Your task to perform on an android device: delete location history Image 0: 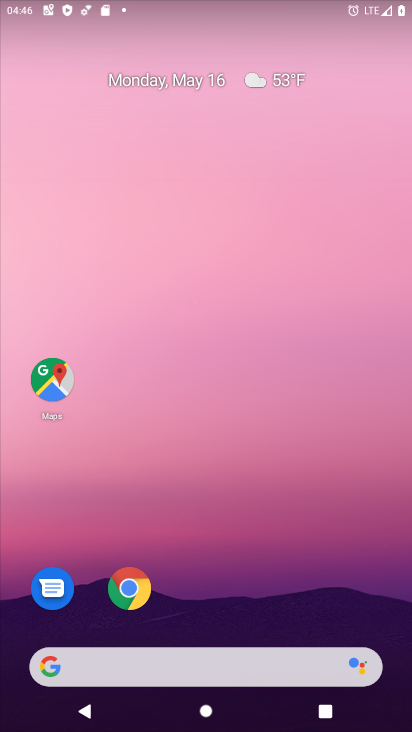
Step 0: drag from (245, 593) to (226, 6)
Your task to perform on an android device: delete location history Image 1: 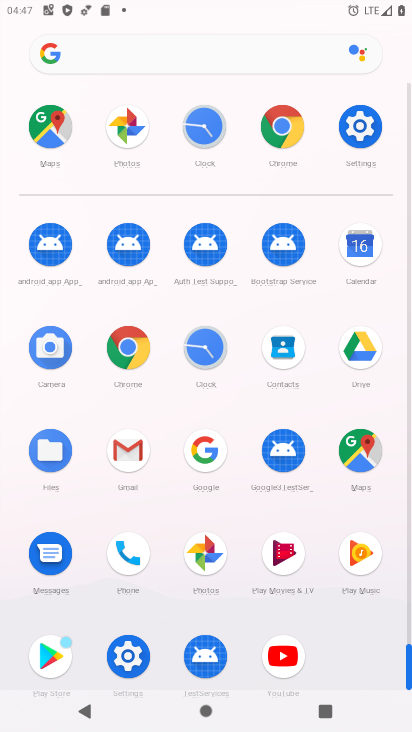
Step 1: click (362, 123)
Your task to perform on an android device: delete location history Image 2: 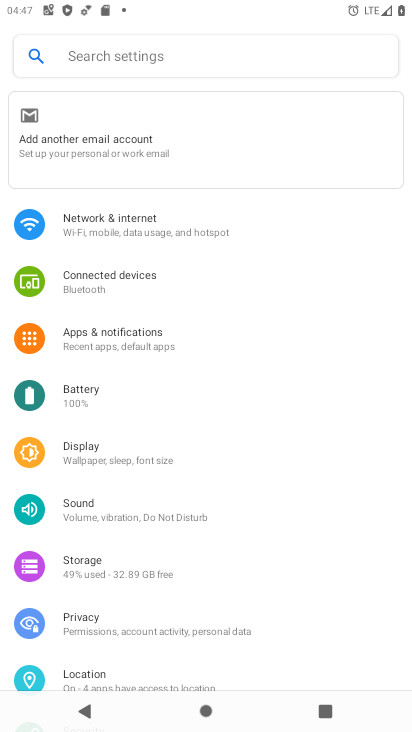
Step 2: drag from (208, 511) to (219, 141)
Your task to perform on an android device: delete location history Image 3: 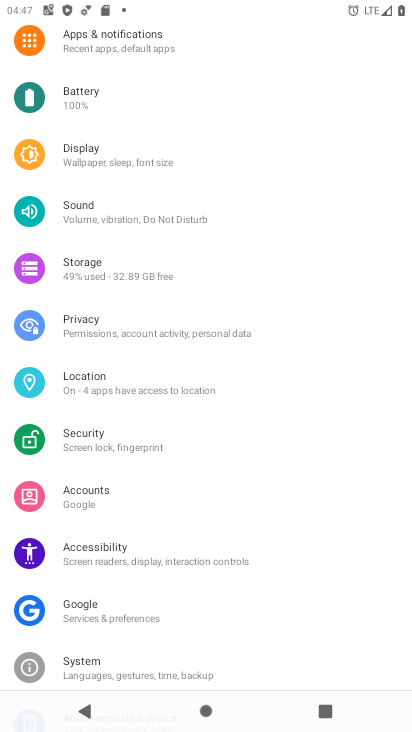
Step 3: click (122, 380)
Your task to perform on an android device: delete location history Image 4: 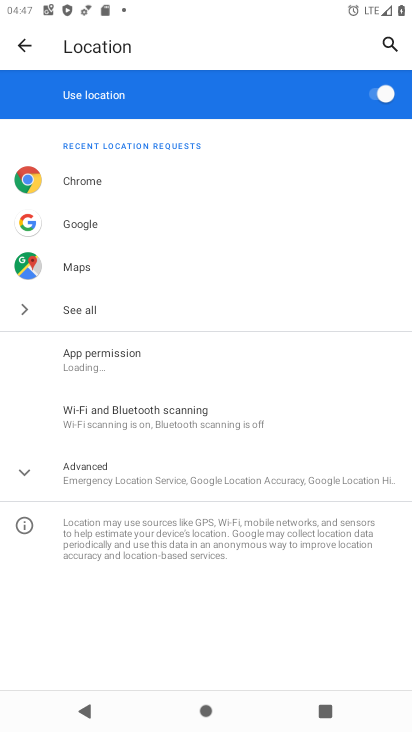
Step 4: click (59, 475)
Your task to perform on an android device: delete location history Image 5: 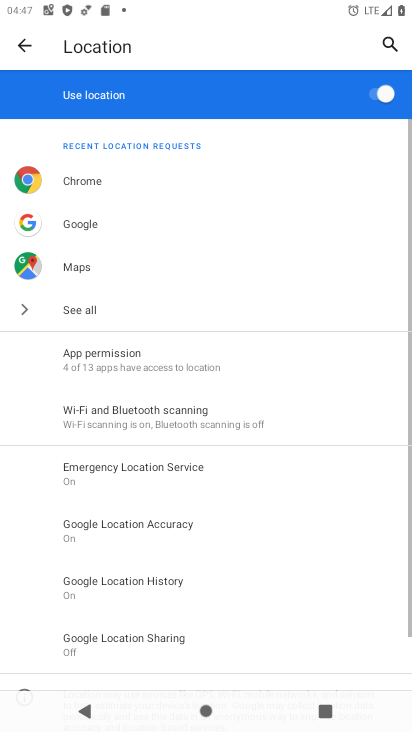
Step 5: drag from (260, 570) to (262, 219)
Your task to perform on an android device: delete location history Image 6: 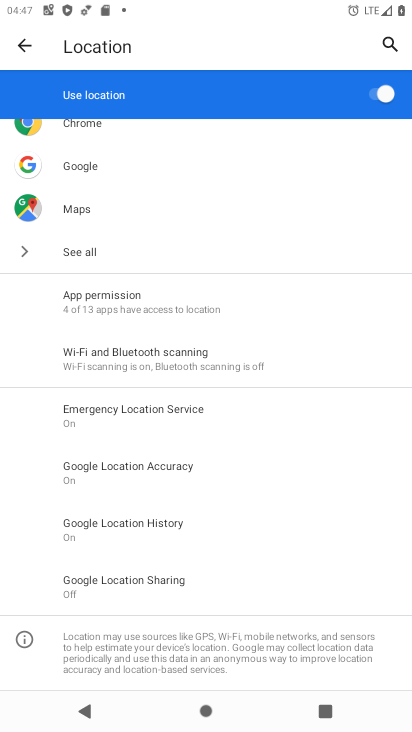
Step 6: click (182, 519)
Your task to perform on an android device: delete location history Image 7: 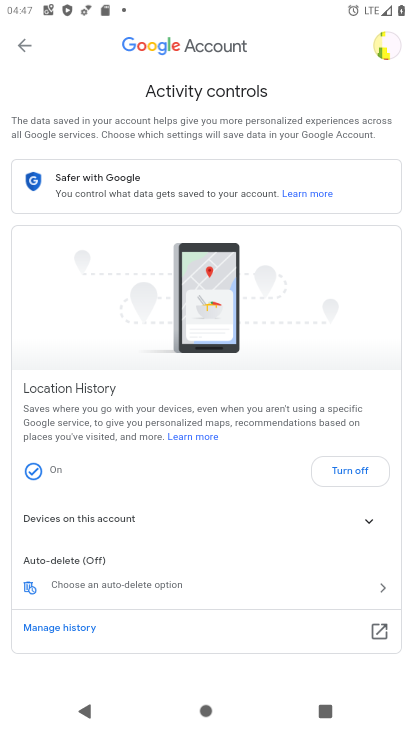
Step 7: drag from (205, 480) to (222, 170)
Your task to perform on an android device: delete location history Image 8: 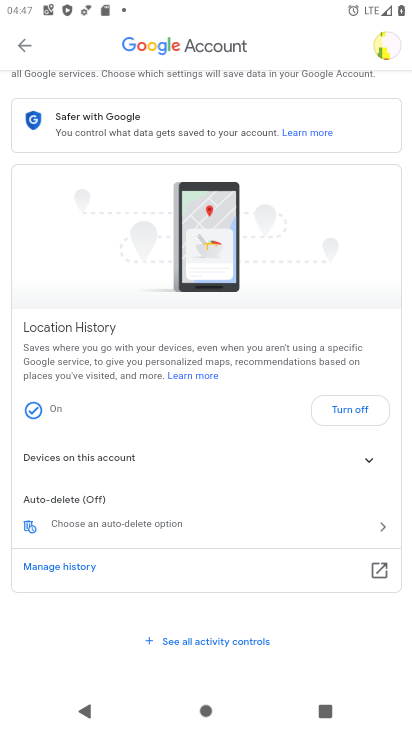
Step 8: click (119, 515)
Your task to perform on an android device: delete location history Image 9: 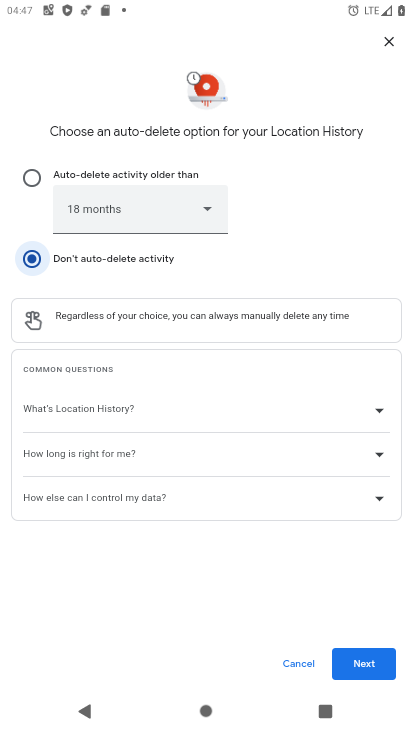
Step 9: click (350, 655)
Your task to perform on an android device: delete location history Image 10: 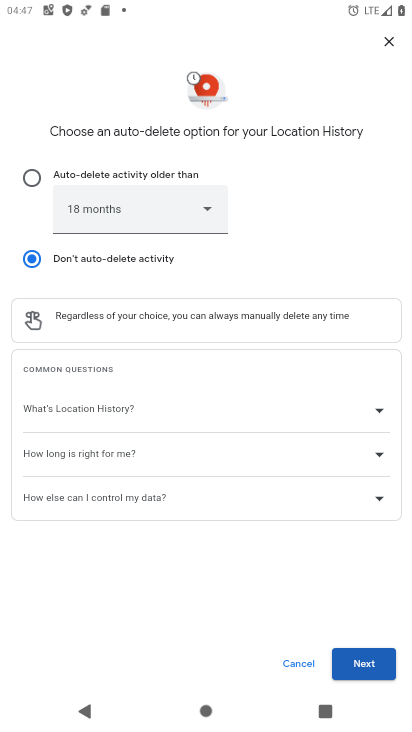
Step 10: click (354, 656)
Your task to perform on an android device: delete location history Image 11: 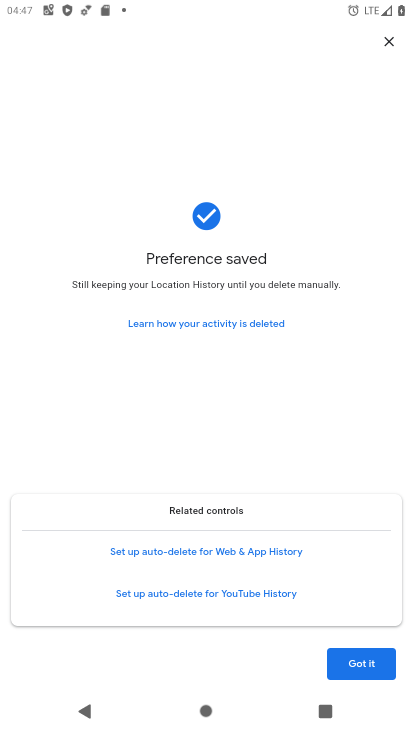
Step 11: task complete